Your task to perform on an android device: Open calendar and show me the third week of next month Image 0: 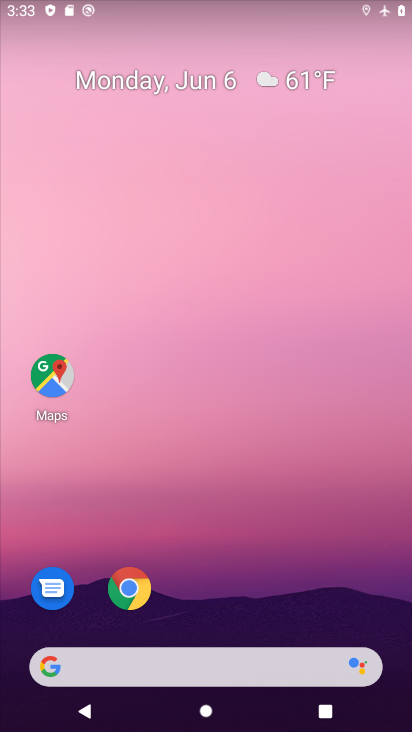
Step 0: click (215, 375)
Your task to perform on an android device: Open calendar and show me the third week of next month Image 1: 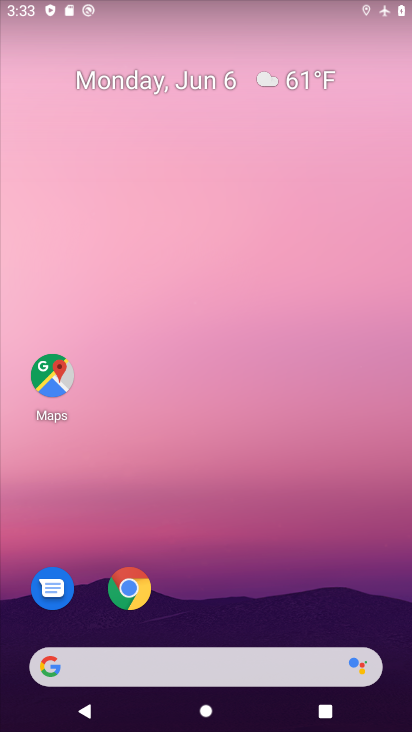
Step 1: drag from (245, 613) to (223, 62)
Your task to perform on an android device: Open calendar and show me the third week of next month Image 2: 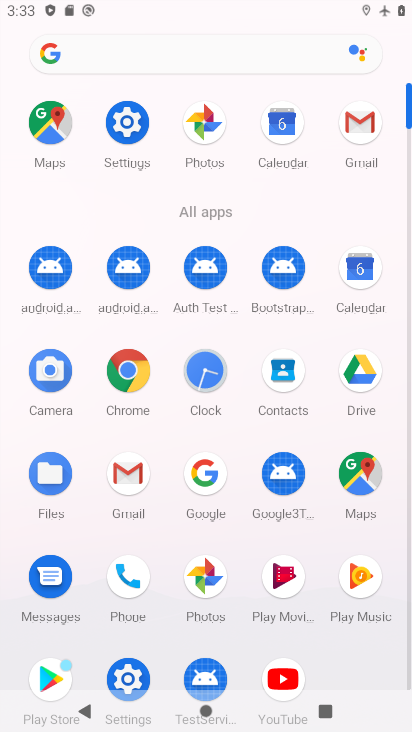
Step 2: click (381, 269)
Your task to perform on an android device: Open calendar and show me the third week of next month Image 3: 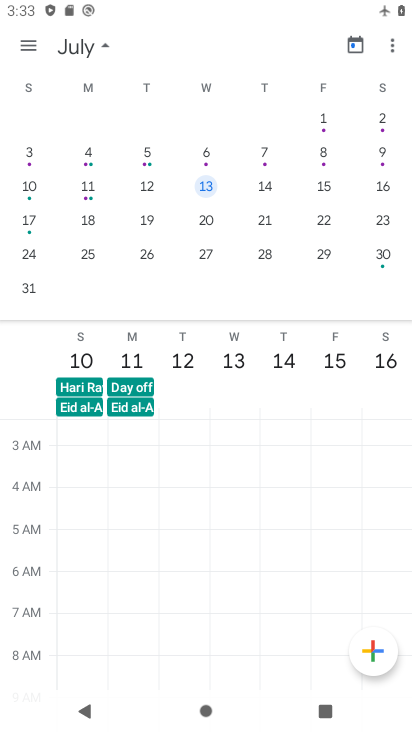
Step 3: click (198, 217)
Your task to perform on an android device: Open calendar and show me the third week of next month Image 4: 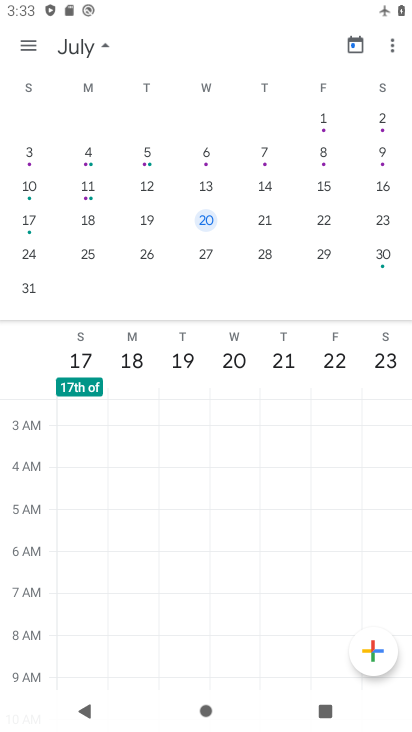
Step 4: task complete